Your task to perform on an android device: Do I have any events this weekend? Image 0: 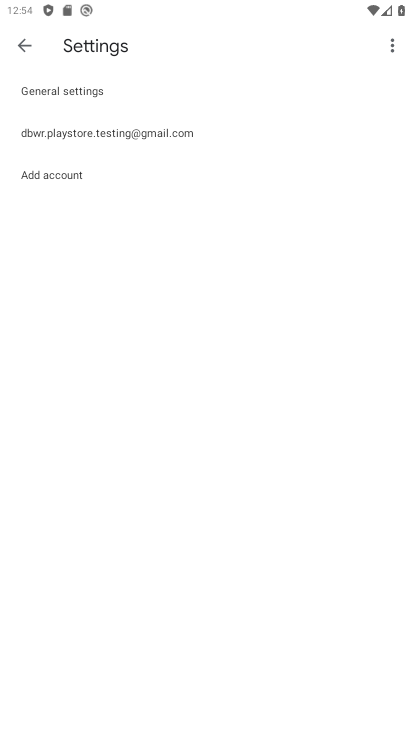
Step 0: press home button
Your task to perform on an android device: Do I have any events this weekend? Image 1: 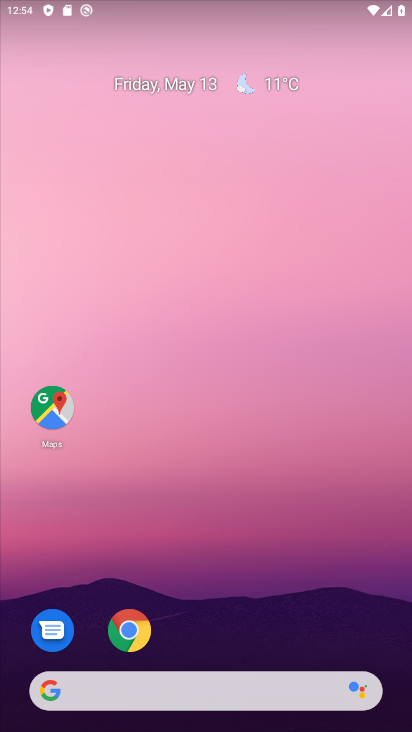
Step 1: drag from (202, 681) to (192, 182)
Your task to perform on an android device: Do I have any events this weekend? Image 2: 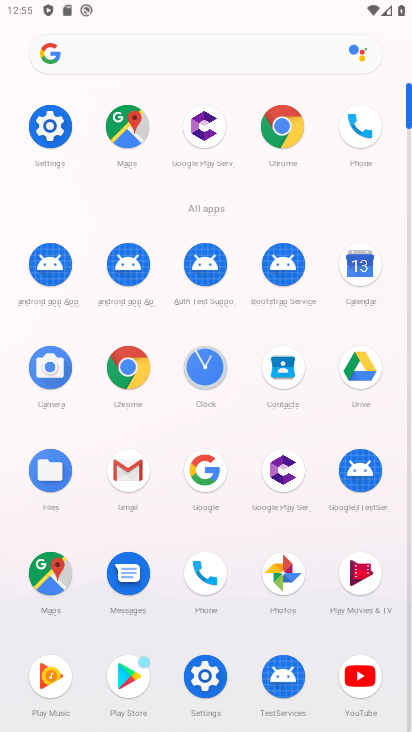
Step 2: click (358, 274)
Your task to perform on an android device: Do I have any events this weekend? Image 3: 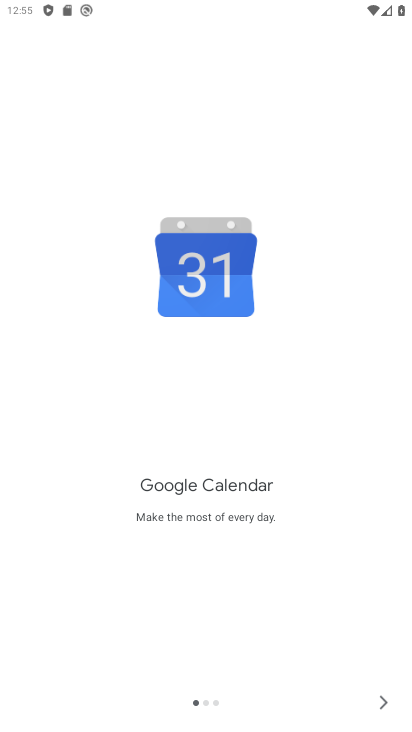
Step 3: click (377, 704)
Your task to perform on an android device: Do I have any events this weekend? Image 4: 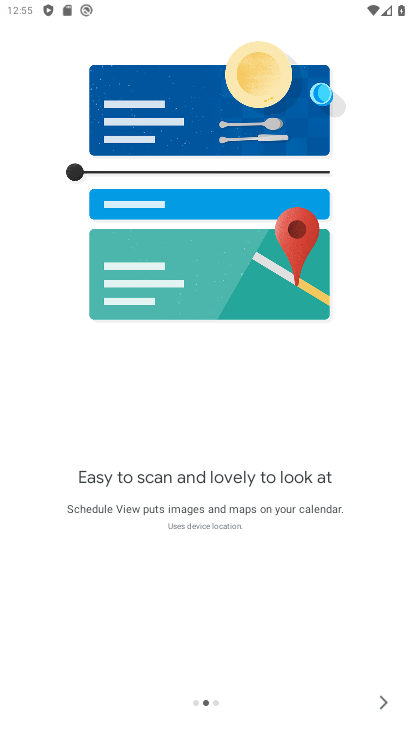
Step 4: click (377, 704)
Your task to perform on an android device: Do I have any events this weekend? Image 5: 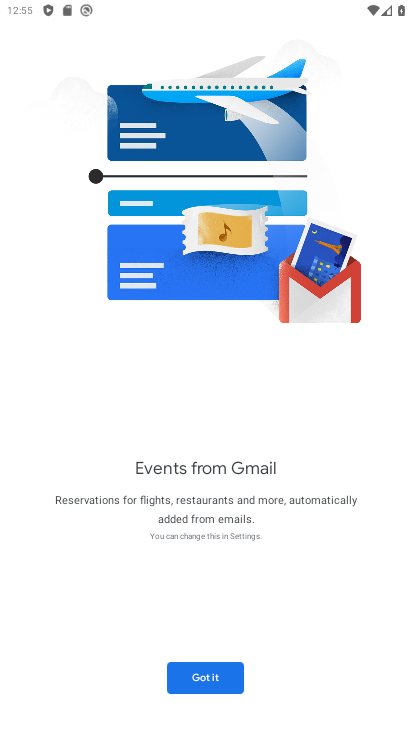
Step 5: click (230, 679)
Your task to perform on an android device: Do I have any events this weekend? Image 6: 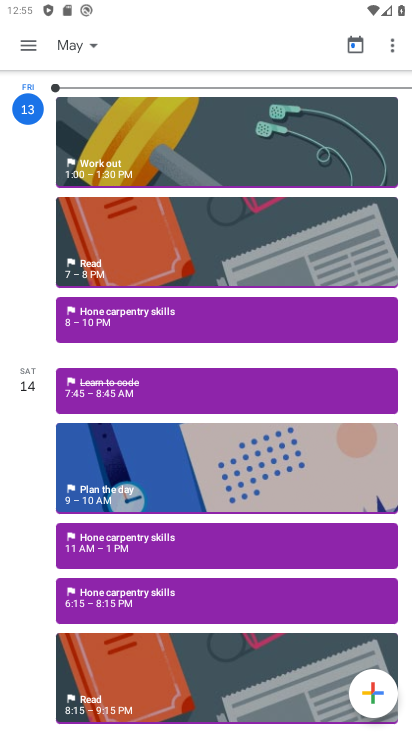
Step 6: click (29, 43)
Your task to perform on an android device: Do I have any events this weekend? Image 7: 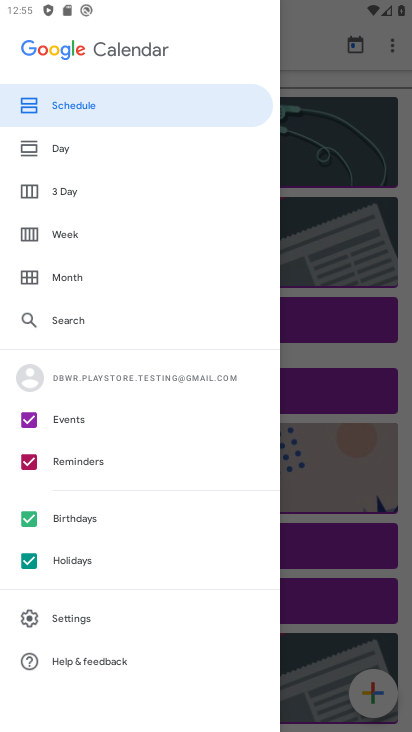
Step 7: click (56, 234)
Your task to perform on an android device: Do I have any events this weekend? Image 8: 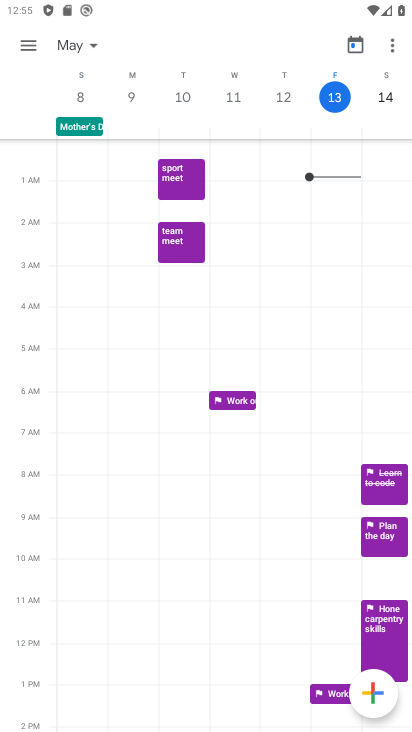
Step 8: task complete